Your task to perform on an android device: open wifi settings Image 0: 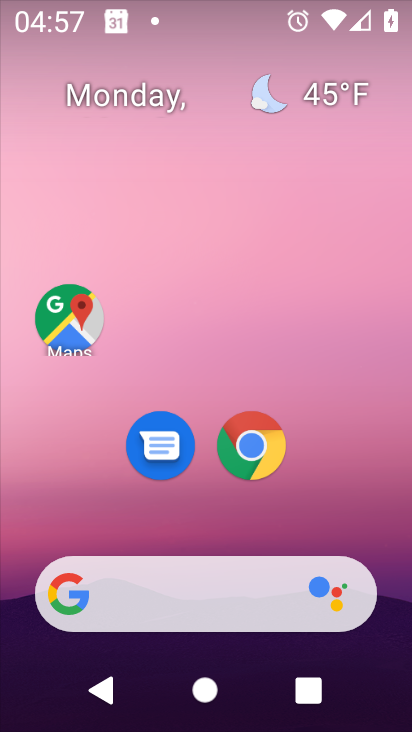
Step 0: drag from (244, 543) to (257, 0)
Your task to perform on an android device: open wifi settings Image 1: 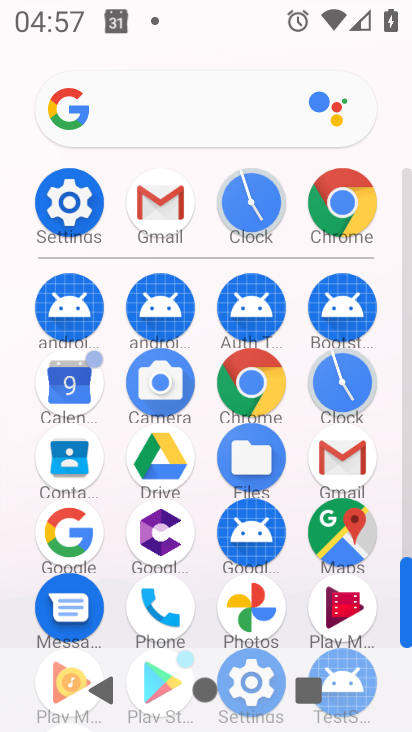
Step 1: click (72, 199)
Your task to perform on an android device: open wifi settings Image 2: 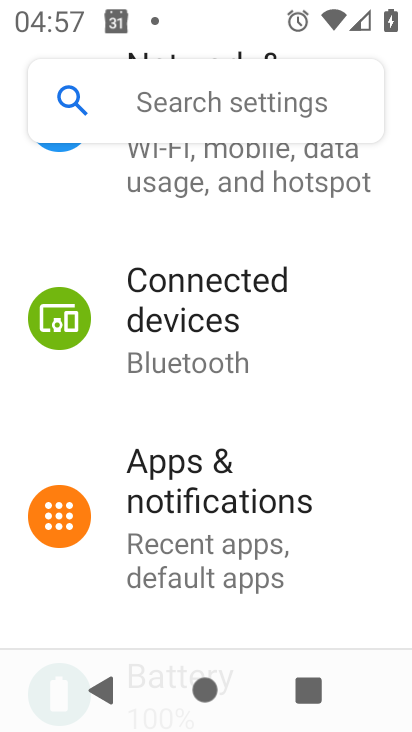
Step 2: drag from (201, 241) to (204, 516)
Your task to perform on an android device: open wifi settings Image 3: 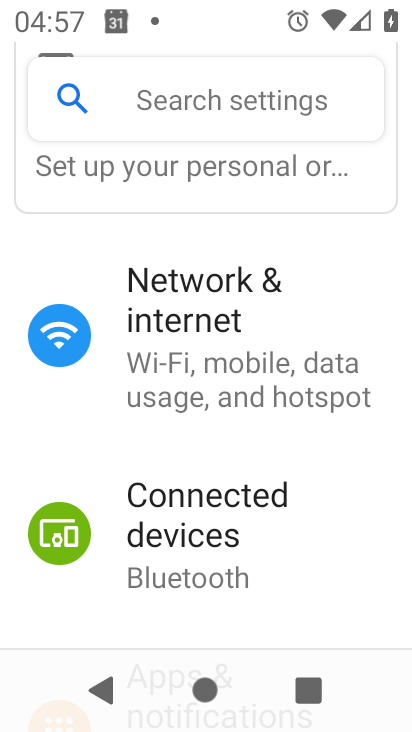
Step 3: click (189, 317)
Your task to perform on an android device: open wifi settings Image 4: 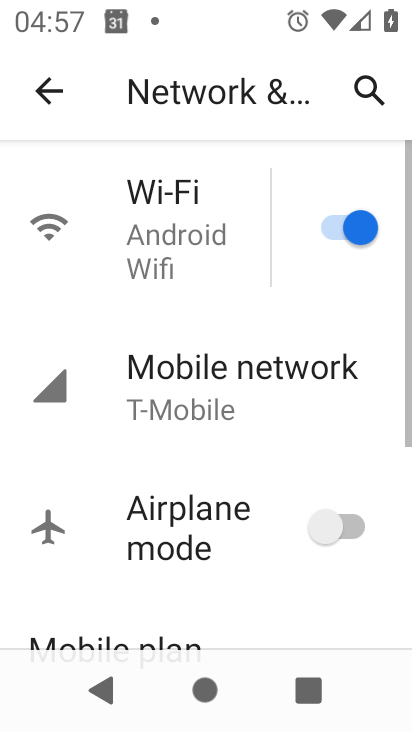
Step 4: click (192, 235)
Your task to perform on an android device: open wifi settings Image 5: 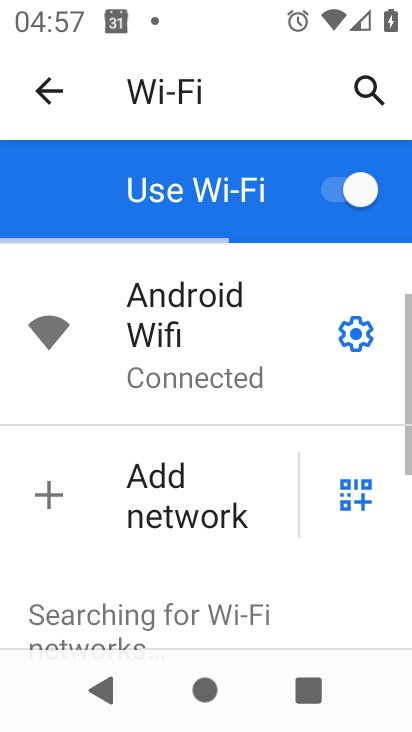
Step 5: task complete